Your task to perform on an android device: Open internet settings Image 0: 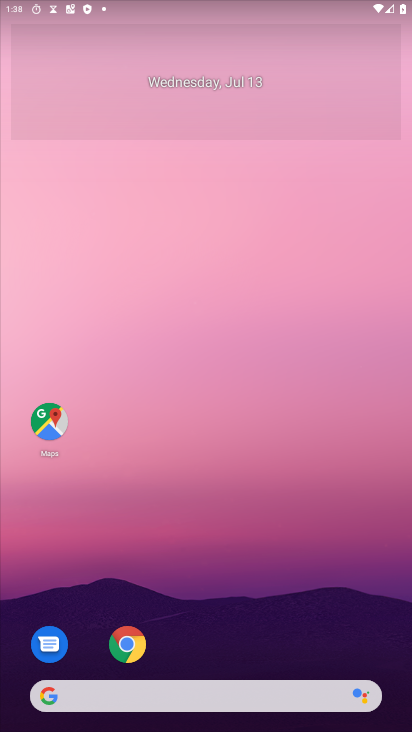
Step 0: press home button
Your task to perform on an android device: Open internet settings Image 1: 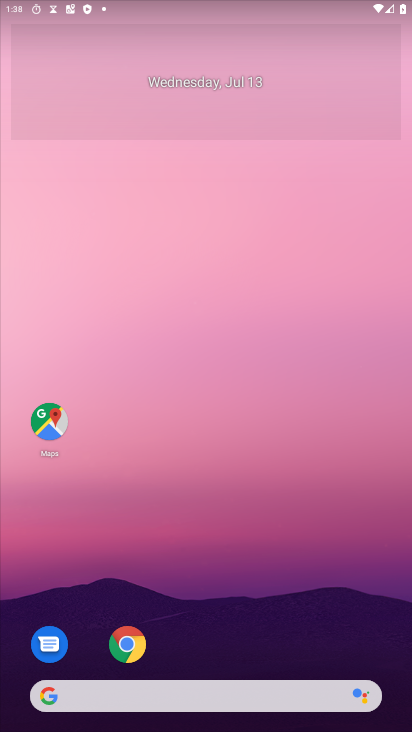
Step 1: drag from (239, 607) to (189, 24)
Your task to perform on an android device: Open internet settings Image 2: 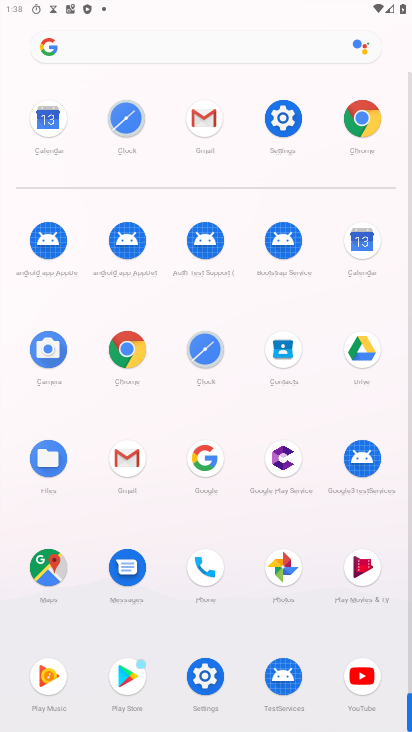
Step 2: click (280, 108)
Your task to perform on an android device: Open internet settings Image 3: 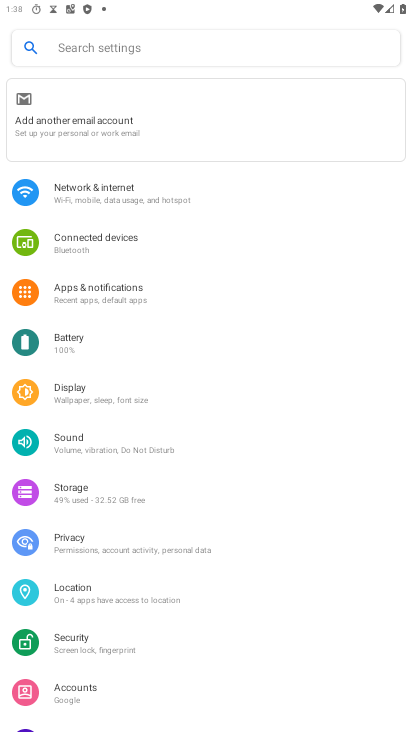
Step 3: click (89, 190)
Your task to perform on an android device: Open internet settings Image 4: 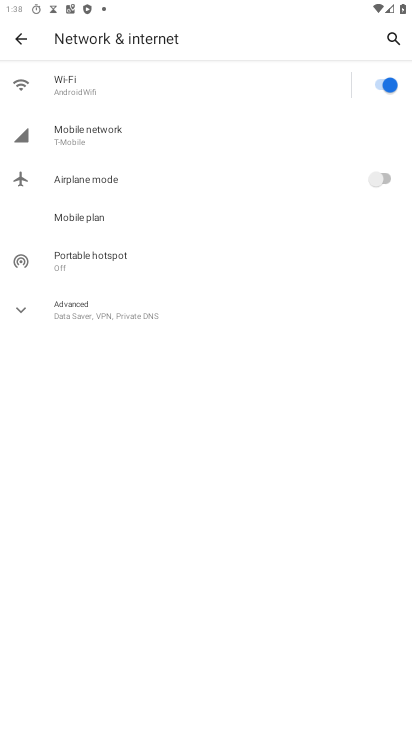
Step 4: task complete